Your task to perform on an android device: Open privacy settings Image 0: 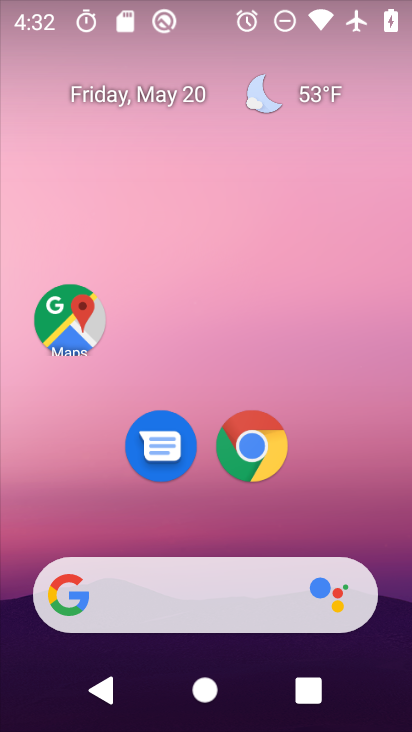
Step 0: drag from (349, 517) to (391, 10)
Your task to perform on an android device: Open privacy settings Image 1: 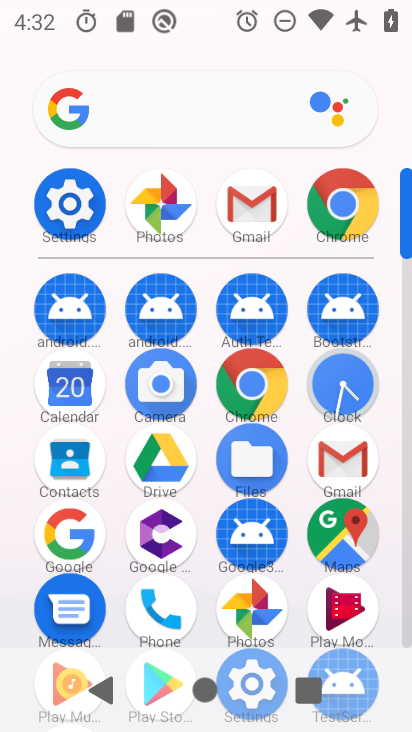
Step 1: click (53, 192)
Your task to perform on an android device: Open privacy settings Image 2: 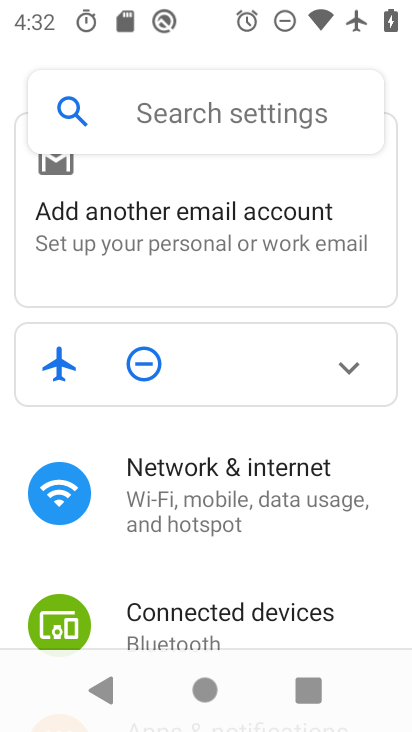
Step 2: drag from (243, 587) to (269, 170)
Your task to perform on an android device: Open privacy settings Image 3: 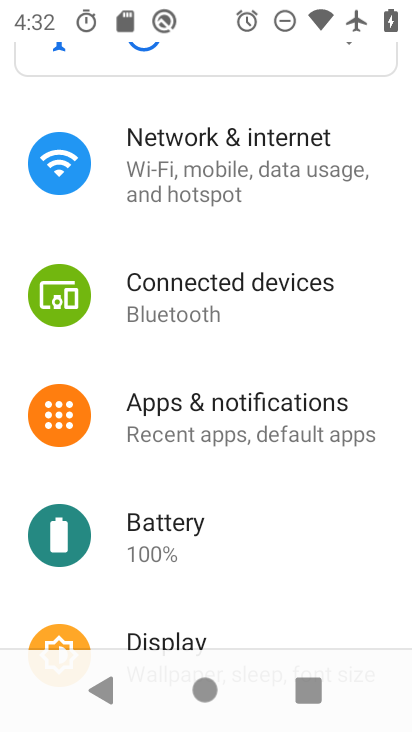
Step 3: drag from (177, 604) to (238, 192)
Your task to perform on an android device: Open privacy settings Image 4: 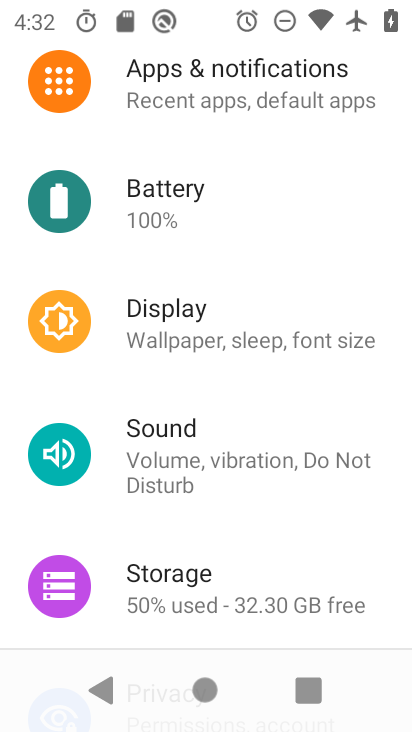
Step 4: drag from (206, 545) to (248, 263)
Your task to perform on an android device: Open privacy settings Image 5: 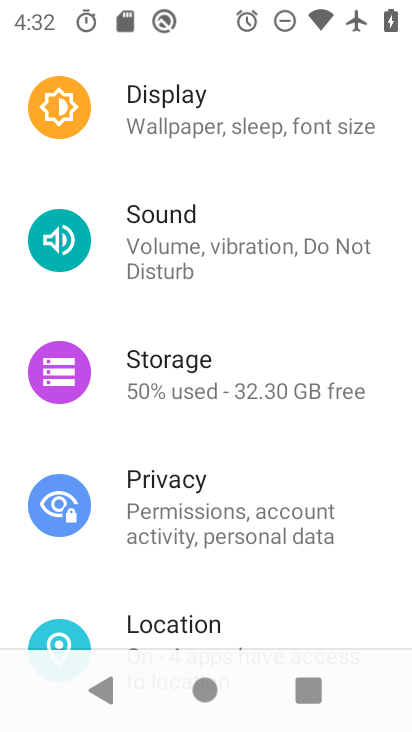
Step 5: click (169, 515)
Your task to perform on an android device: Open privacy settings Image 6: 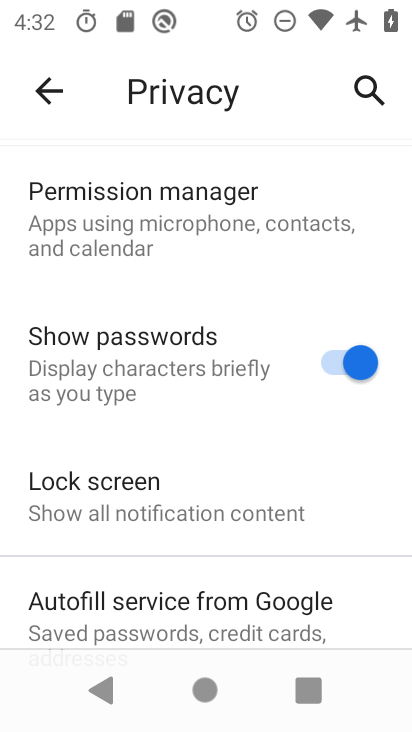
Step 6: task complete